Your task to perform on an android device: delete a single message in the gmail app Image 0: 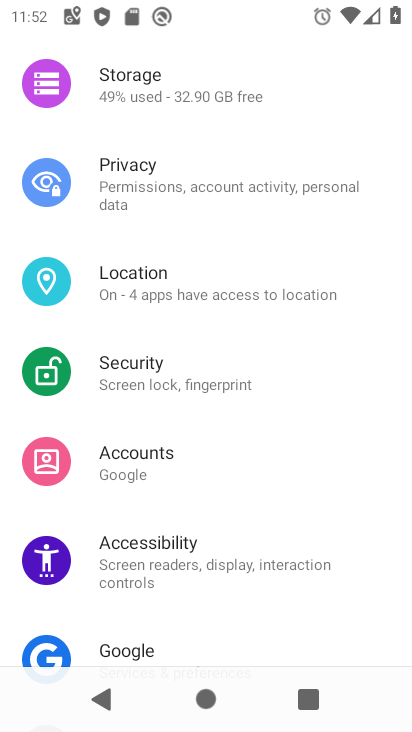
Step 0: press home button
Your task to perform on an android device: delete a single message in the gmail app Image 1: 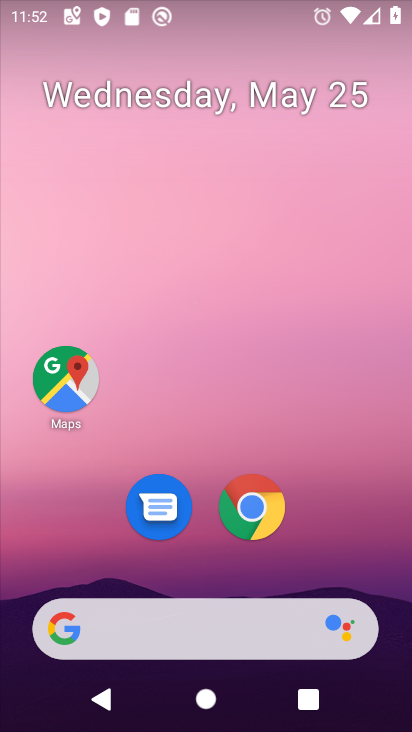
Step 1: drag from (316, 571) to (272, 69)
Your task to perform on an android device: delete a single message in the gmail app Image 2: 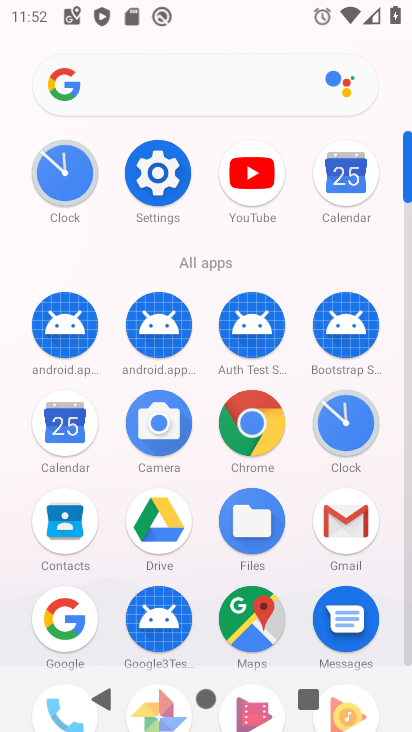
Step 2: click (346, 522)
Your task to perform on an android device: delete a single message in the gmail app Image 3: 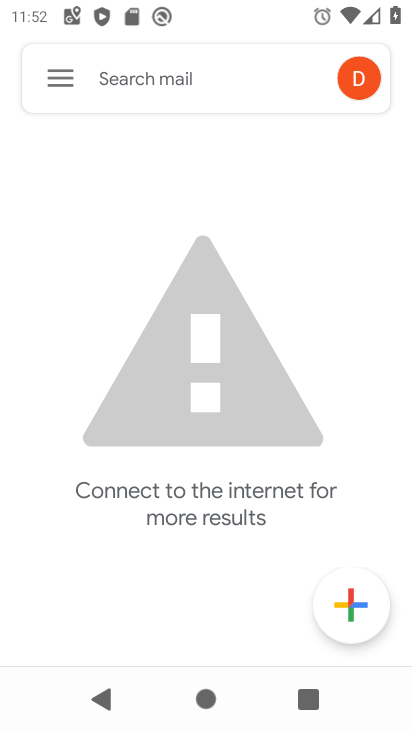
Step 3: click (58, 72)
Your task to perform on an android device: delete a single message in the gmail app Image 4: 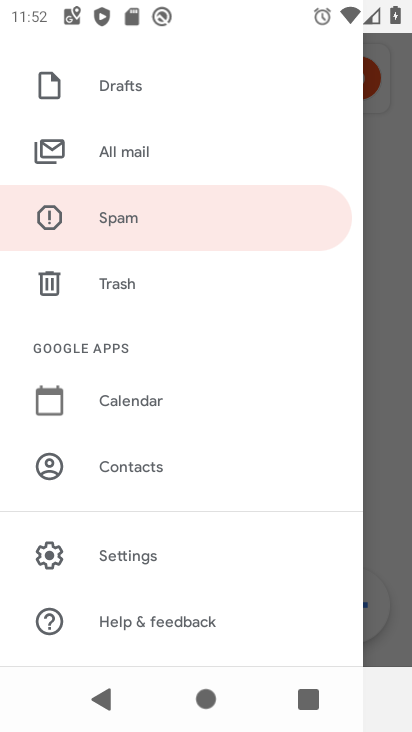
Step 4: drag from (133, 138) to (142, 250)
Your task to perform on an android device: delete a single message in the gmail app Image 5: 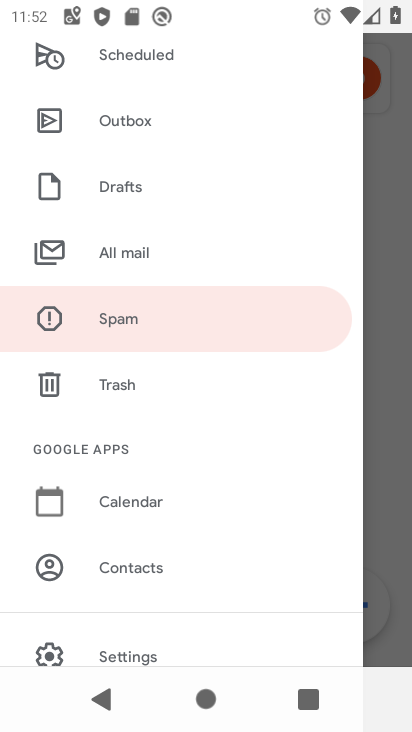
Step 5: click (145, 240)
Your task to perform on an android device: delete a single message in the gmail app Image 6: 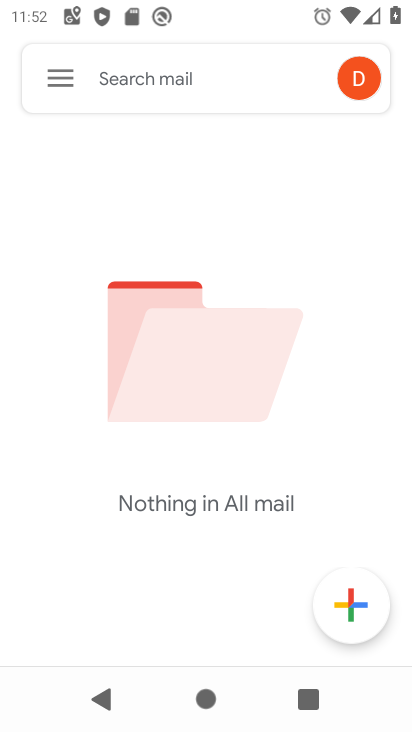
Step 6: click (54, 80)
Your task to perform on an android device: delete a single message in the gmail app Image 7: 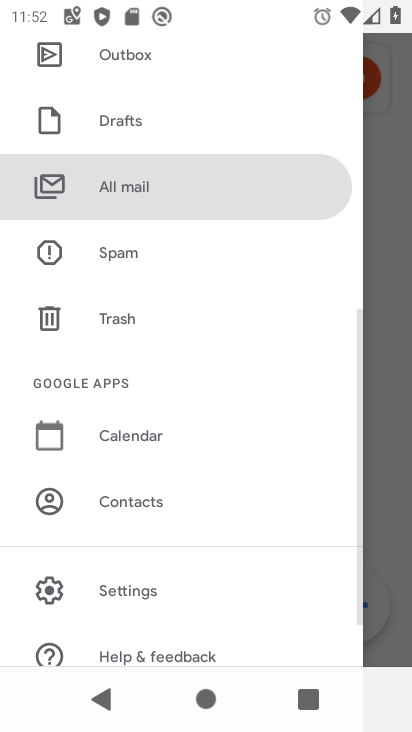
Step 7: drag from (157, 250) to (170, 383)
Your task to perform on an android device: delete a single message in the gmail app Image 8: 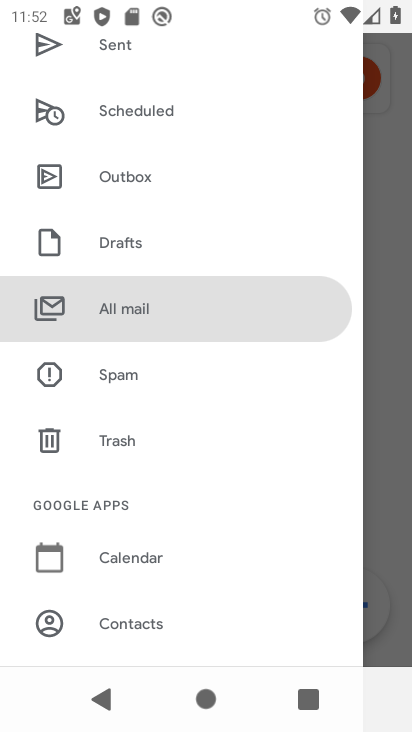
Step 8: drag from (217, 206) to (238, 313)
Your task to perform on an android device: delete a single message in the gmail app Image 9: 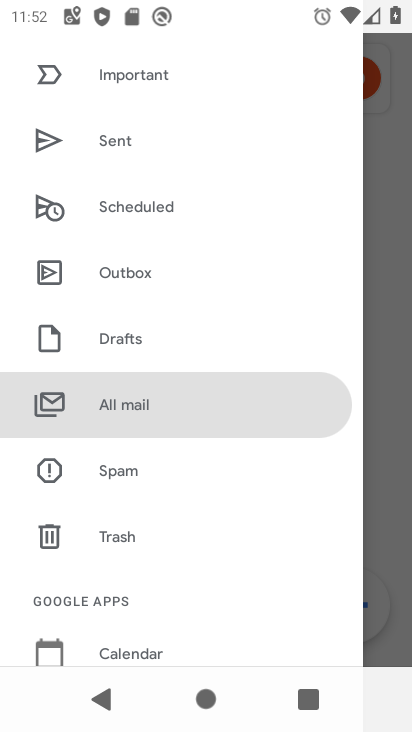
Step 9: drag from (191, 220) to (200, 299)
Your task to perform on an android device: delete a single message in the gmail app Image 10: 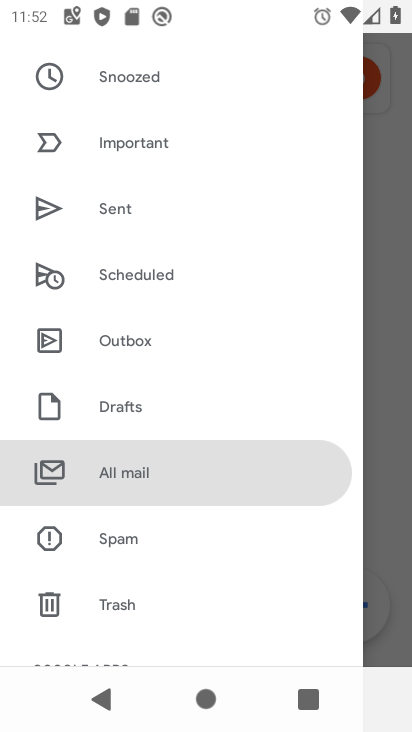
Step 10: drag from (173, 197) to (194, 284)
Your task to perform on an android device: delete a single message in the gmail app Image 11: 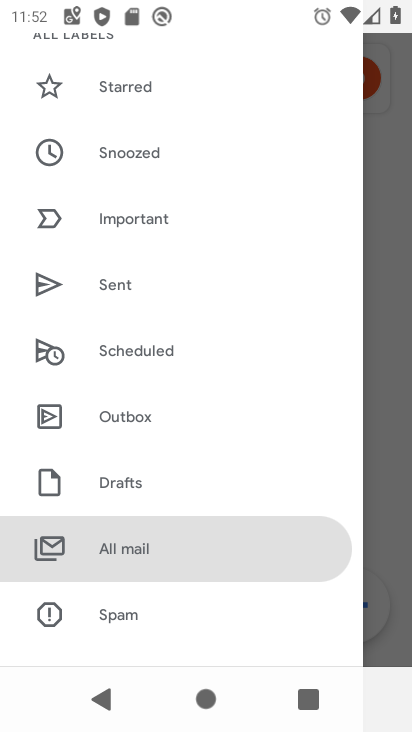
Step 11: drag from (171, 162) to (185, 266)
Your task to perform on an android device: delete a single message in the gmail app Image 12: 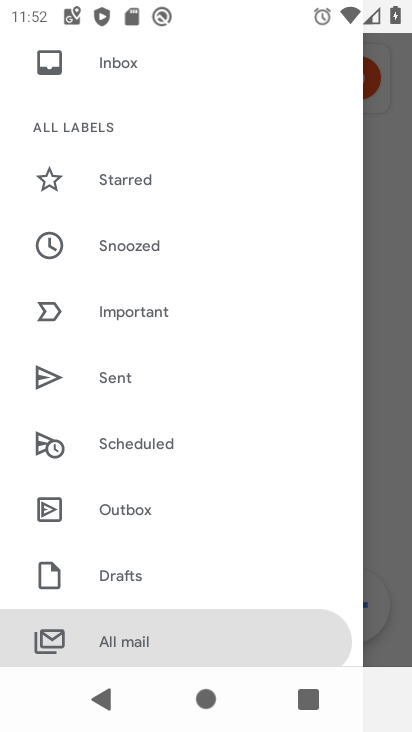
Step 12: drag from (167, 158) to (203, 250)
Your task to perform on an android device: delete a single message in the gmail app Image 13: 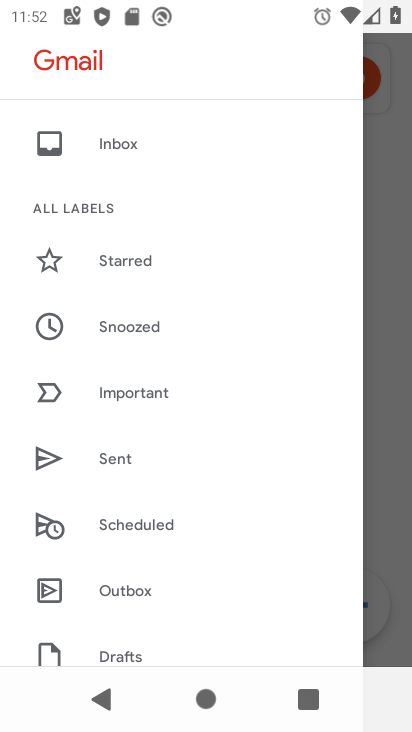
Step 13: click (141, 148)
Your task to perform on an android device: delete a single message in the gmail app Image 14: 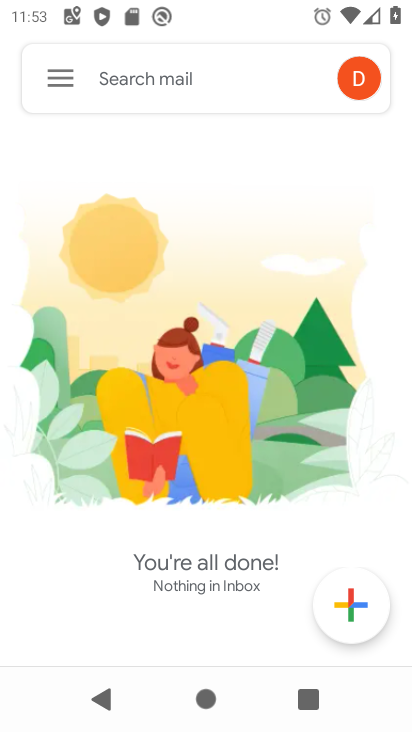
Step 14: task complete